Your task to perform on an android device: refresh tabs in the chrome app Image 0: 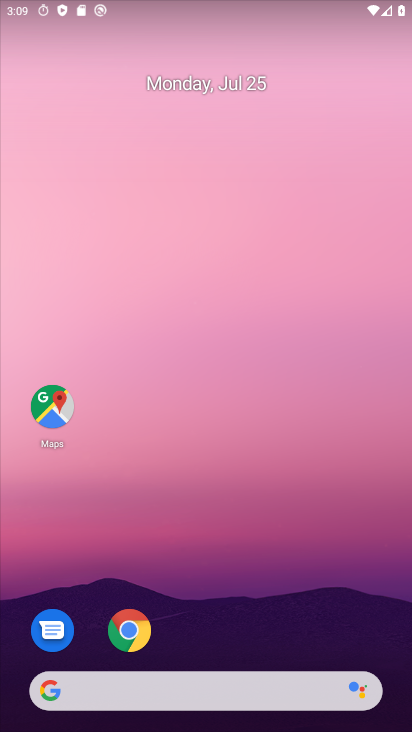
Step 0: click (284, 217)
Your task to perform on an android device: refresh tabs in the chrome app Image 1: 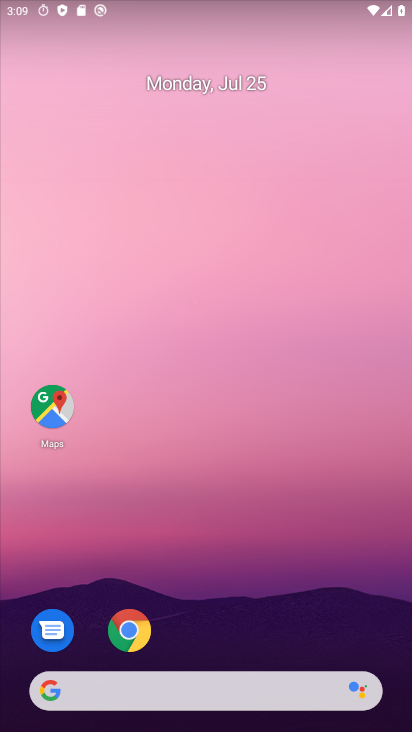
Step 1: drag from (333, 505) to (325, 86)
Your task to perform on an android device: refresh tabs in the chrome app Image 2: 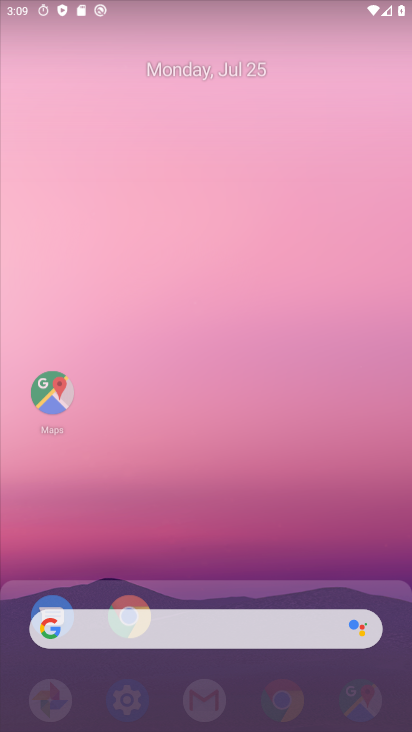
Step 2: drag from (192, 575) to (259, 64)
Your task to perform on an android device: refresh tabs in the chrome app Image 3: 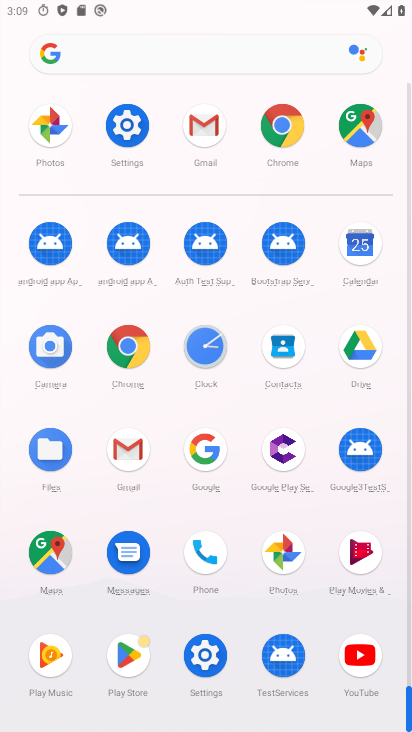
Step 3: drag from (226, 410) to (269, 137)
Your task to perform on an android device: refresh tabs in the chrome app Image 4: 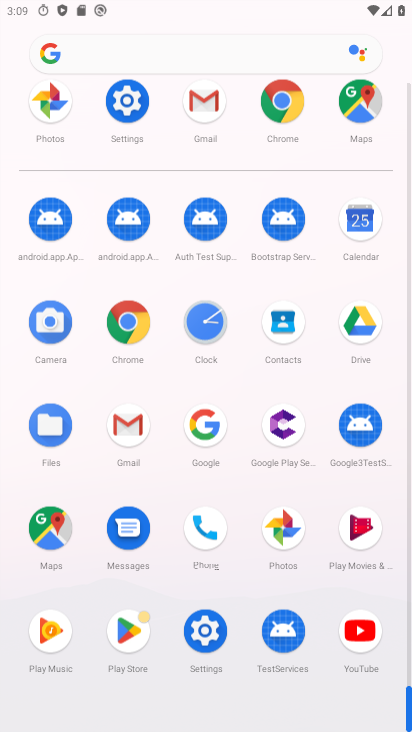
Step 4: drag from (183, 670) to (158, 246)
Your task to perform on an android device: refresh tabs in the chrome app Image 5: 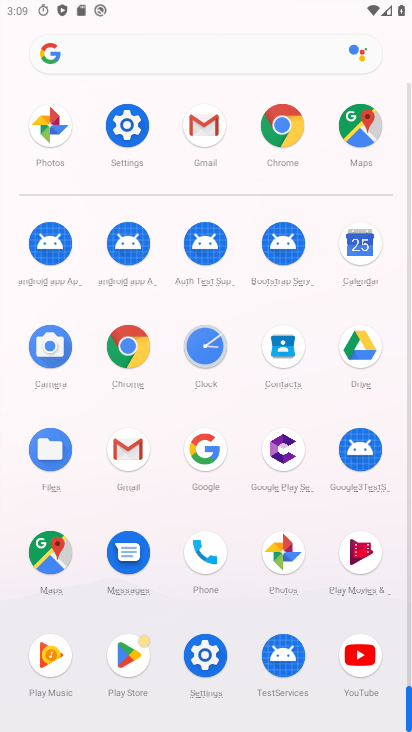
Step 5: click (253, 119)
Your task to perform on an android device: refresh tabs in the chrome app Image 6: 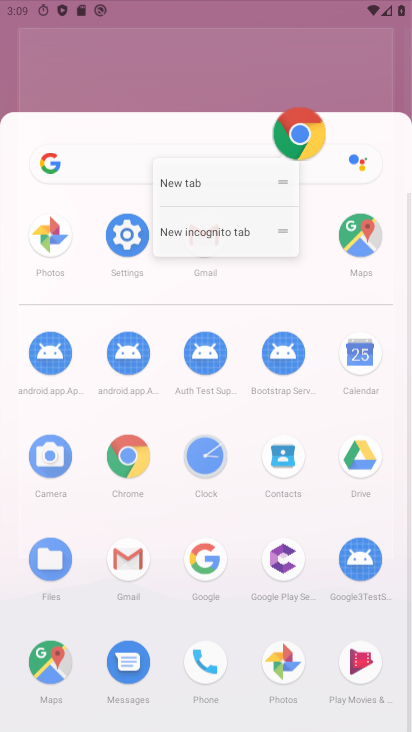
Step 6: click (269, 127)
Your task to perform on an android device: refresh tabs in the chrome app Image 7: 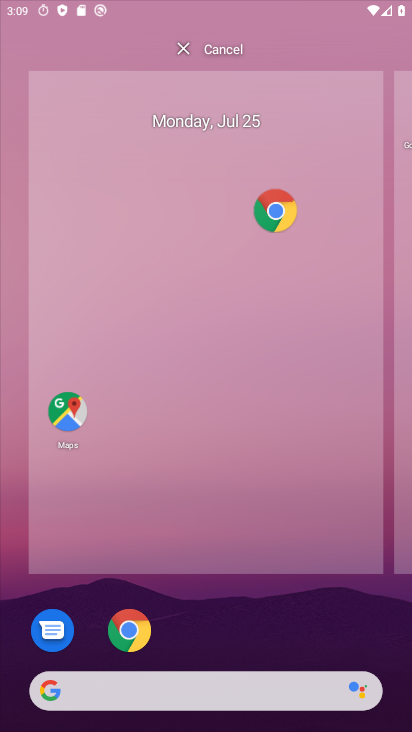
Step 7: click (269, 128)
Your task to perform on an android device: refresh tabs in the chrome app Image 8: 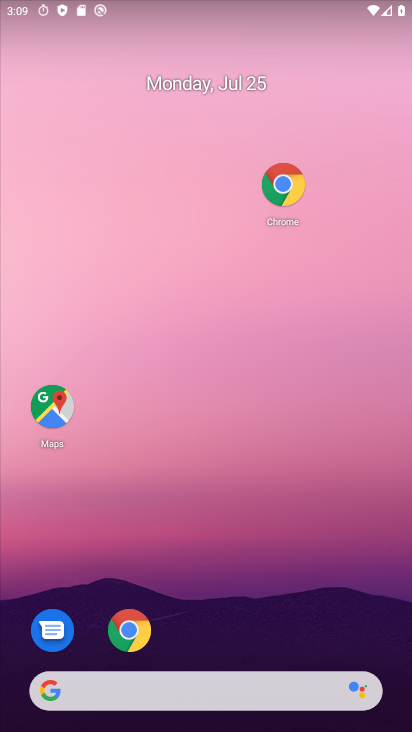
Step 8: drag from (258, 640) to (271, 183)
Your task to perform on an android device: refresh tabs in the chrome app Image 9: 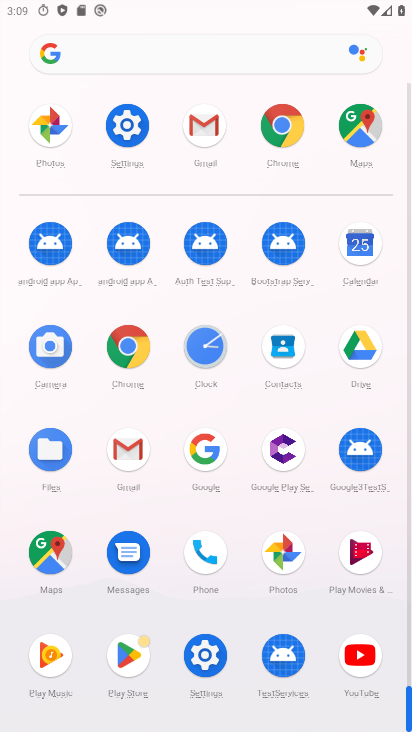
Step 9: click (300, 213)
Your task to perform on an android device: refresh tabs in the chrome app Image 10: 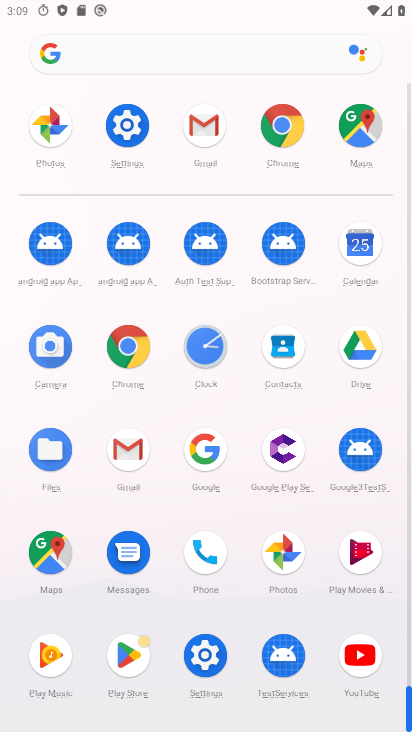
Step 10: click (282, 138)
Your task to perform on an android device: refresh tabs in the chrome app Image 11: 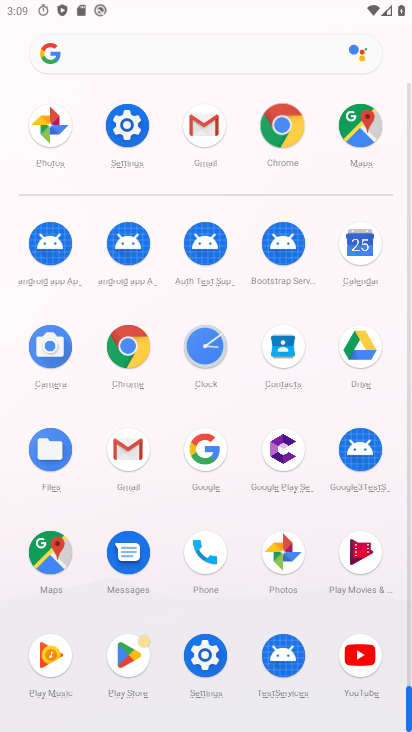
Step 11: click (281, 137)
Your task to perform on an android device: refresh tabs in the chrome app Image 12: 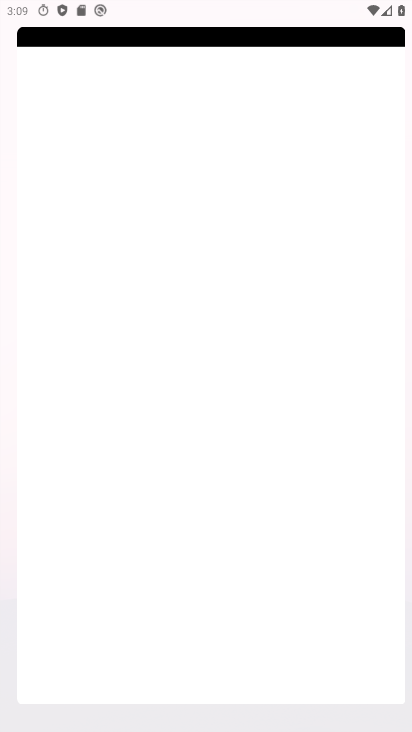
Step 12: click (285, 139)
Your task to perform on an android device: refresh tabs in the chrome app Image 13: 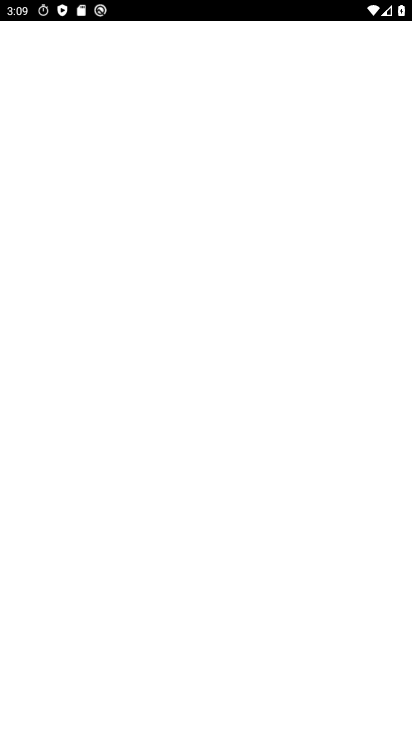
Step 13: click (288, 134)
Your task to perform on an android device: refresh tabs in the chrome app Image 14: 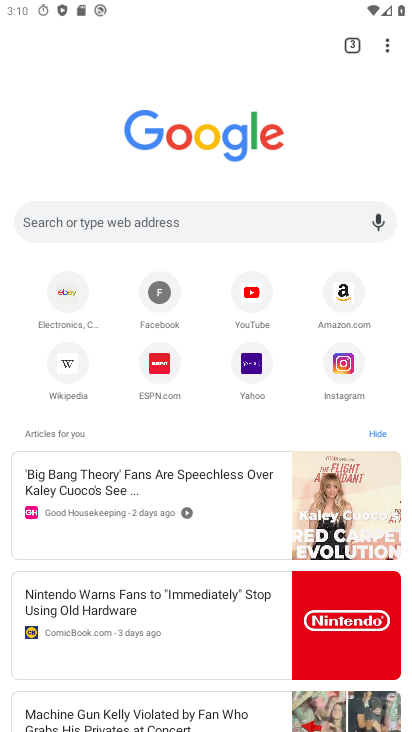
Step 14: click (382, 37)
Your task to perform on an android device: refresh tabs in the chrome app Image 15: 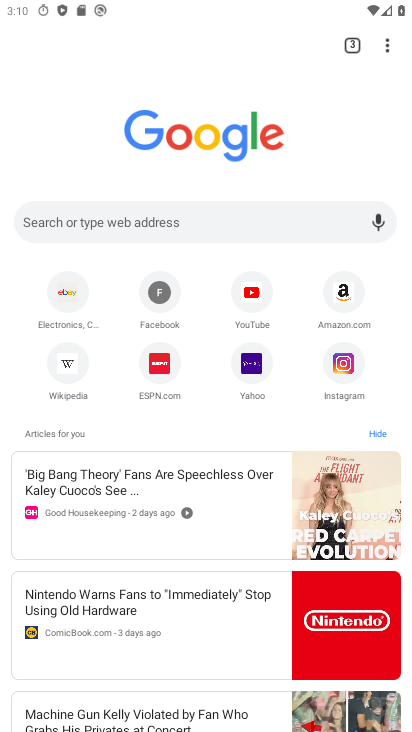
Step 15: click (384, 39)
Your task to perform on an android device: refresh tabs in the chrome app Image 16: 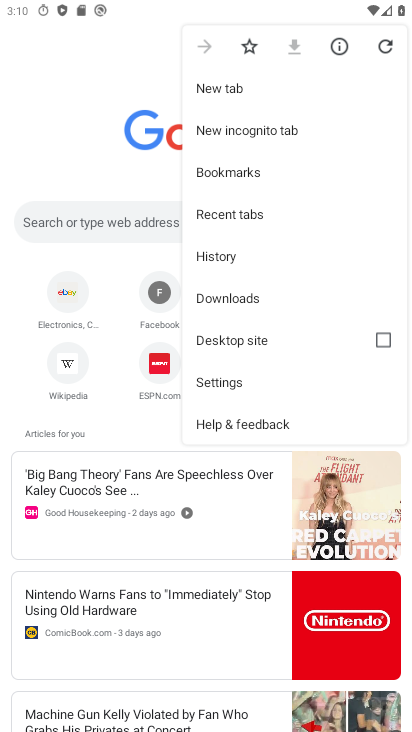
Step 16: click (381, 51)
Your task to perform on an android device: refresh tabs in the chrome app Image 17: 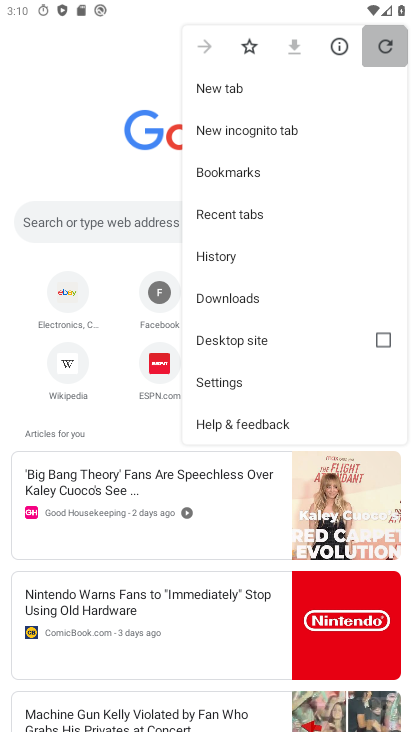
Step 17: click (384, 46)
Your task to perform on an android device: refresh tabs in the chrome app Image 18: 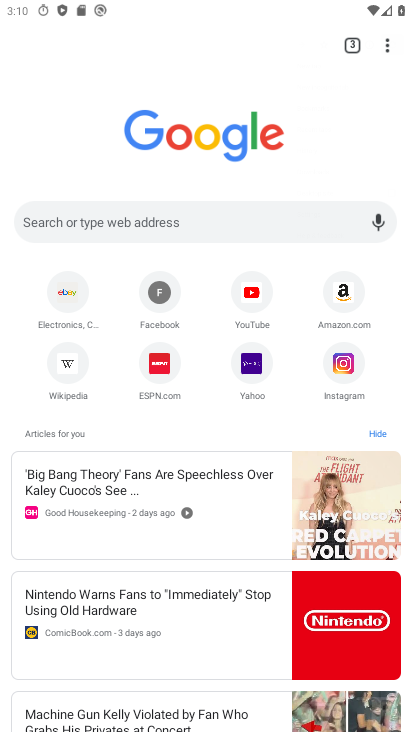
Step 18: click (384, 46)
Your task to perform on an android device: refresh tabs in the chrome app Image 19: 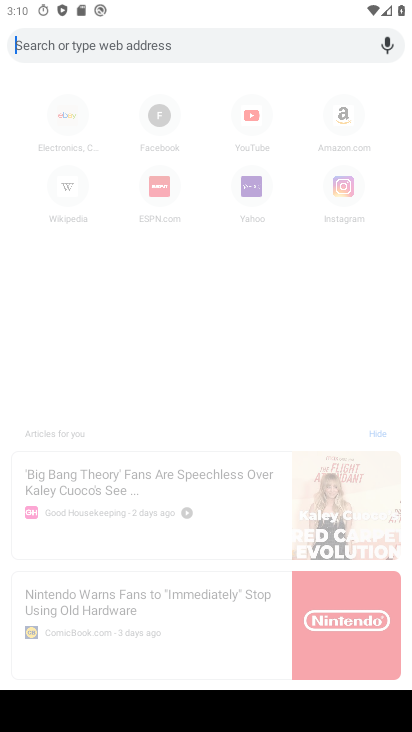
Step 19: task complete